Your task to perform on an android device: Open the Play Movies app and select the watchlist tab. Image 0: 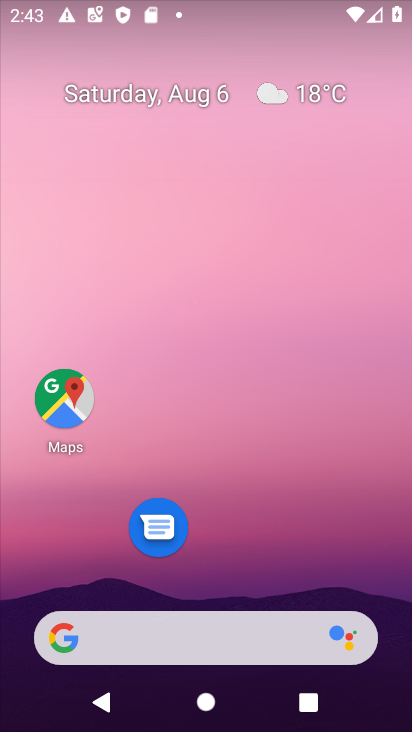
Step 0: drag from (285, 529) to (312, 0)
Your task to perform on an android device: Open the Play Movies app and select the watchlist tab. Image 1: 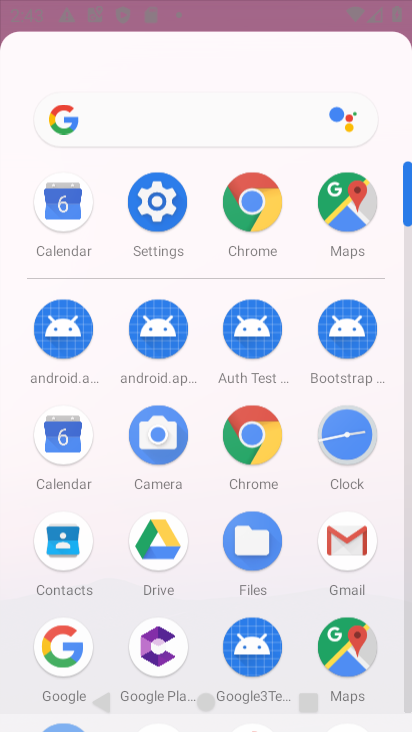
Step 1: drag from (286, 299) to (298, 77)
Your task to perform on an android device: Open the Play Movies app and select the watchlist tab. Image 2: 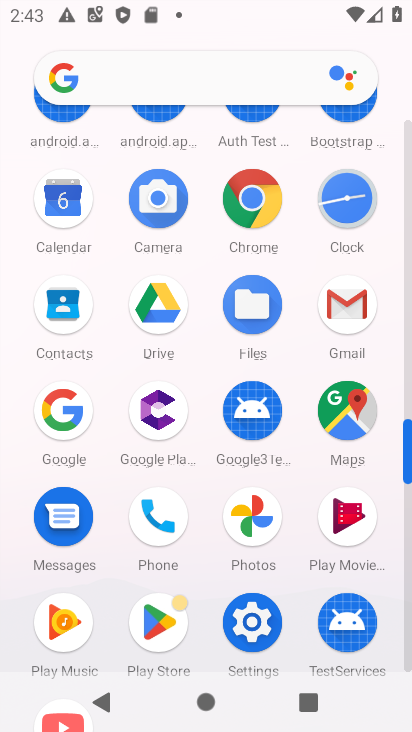
Step 2: click (354, 539)
Your task to perform on an android device: Open the Play Movies app and select the watchlist tab. Image 3: 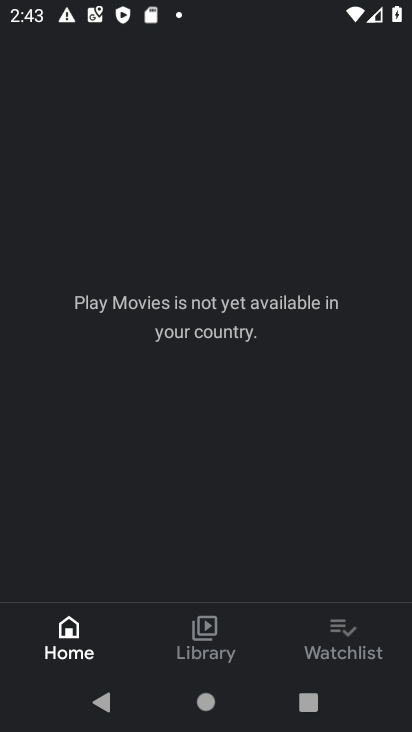
Step 3: click (344, 649)
Your task to perform on an android device: Open the Play Movies app and select the watchlist tab. Image 4: 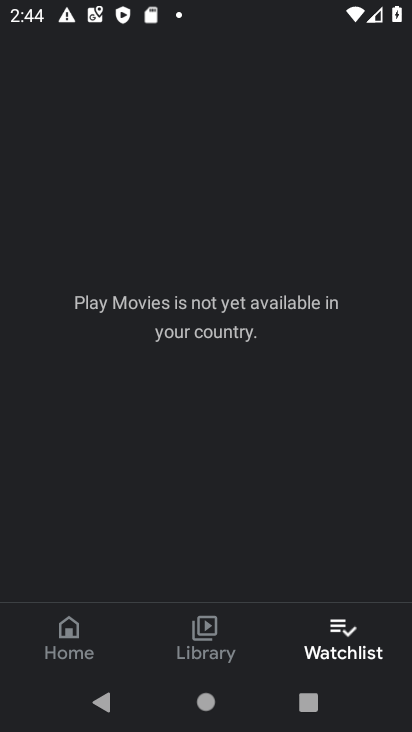
Step 4: task complete